Your task to perform on an android device: Search for sushi restaurants on Maps Image 0: 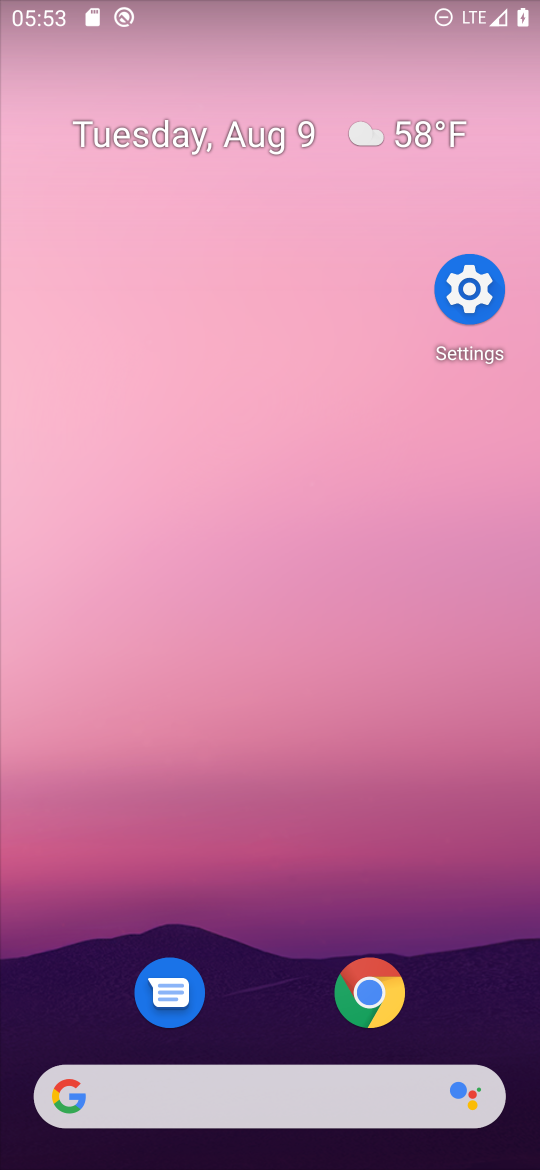
Step 0: drag from (178, 812) to (495, 911)
Your task to perform on an android device: Search for sushi restaurants on Maps Image 1: 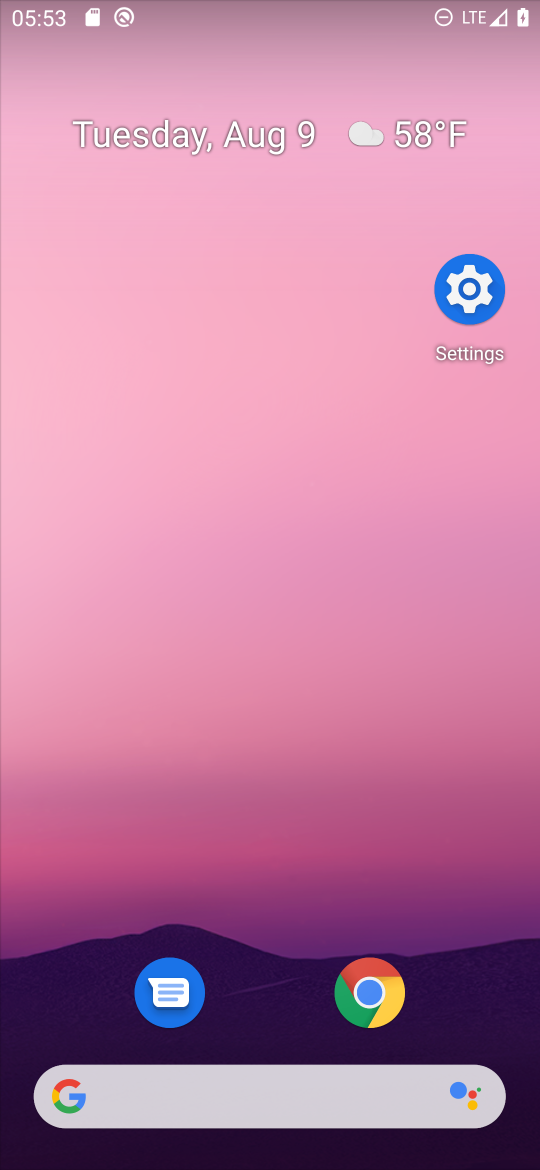
Step 1: drag from (226, 1072) to (226, 18)
Your task to perform on an android device: Search for sushi restaurants on Maps Image 2: 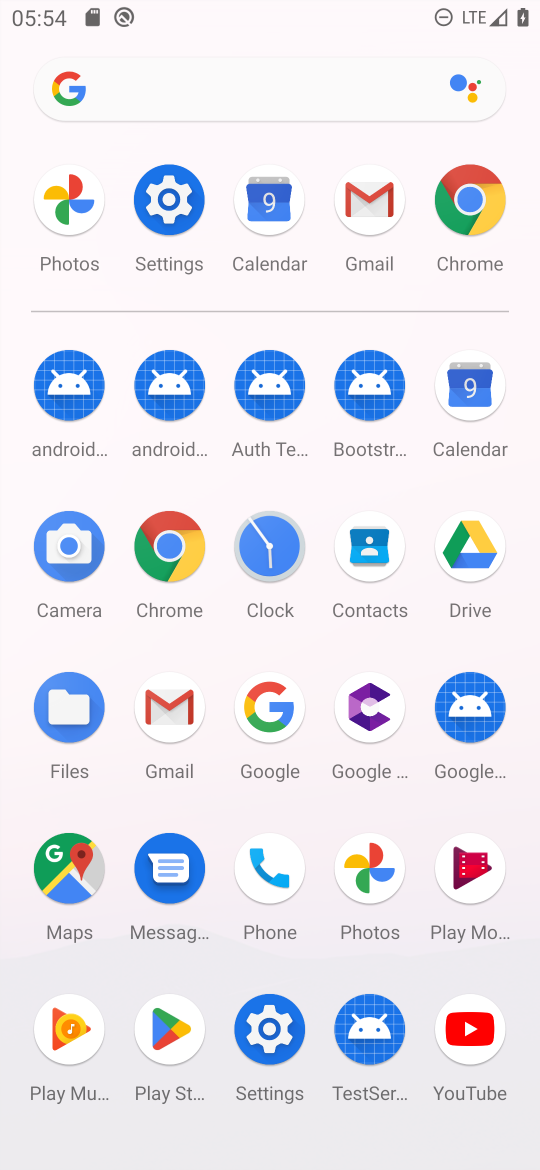
Step 2: click (82, 882)
Your task to perform on an android device: Search for sushi restaurants on Maps Image 3: 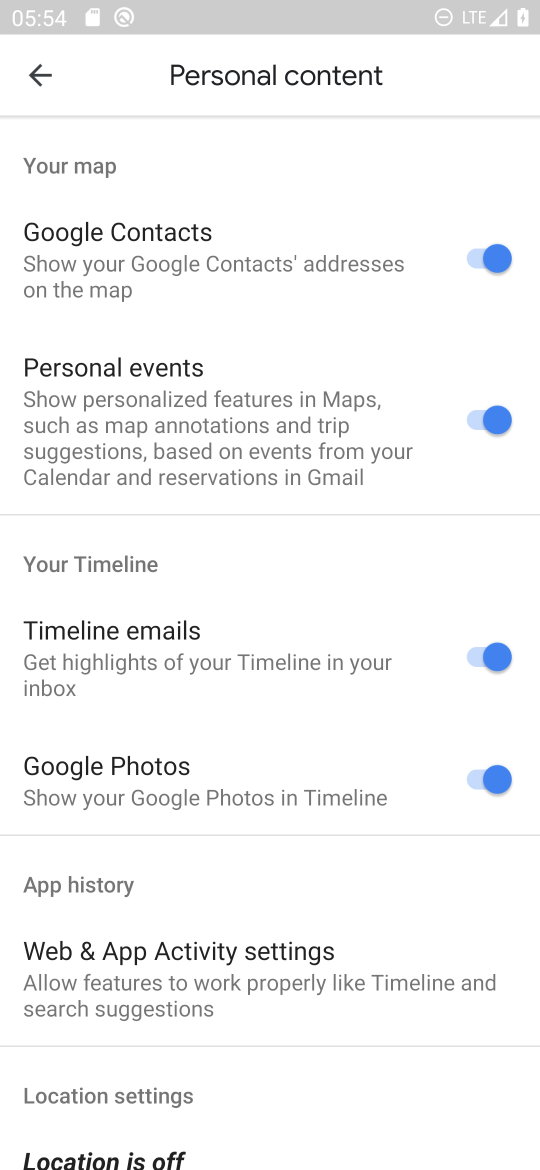
Step 3: press back button
Your task to perform on an android device: Search for sushi restaurants on Maps Image 4: 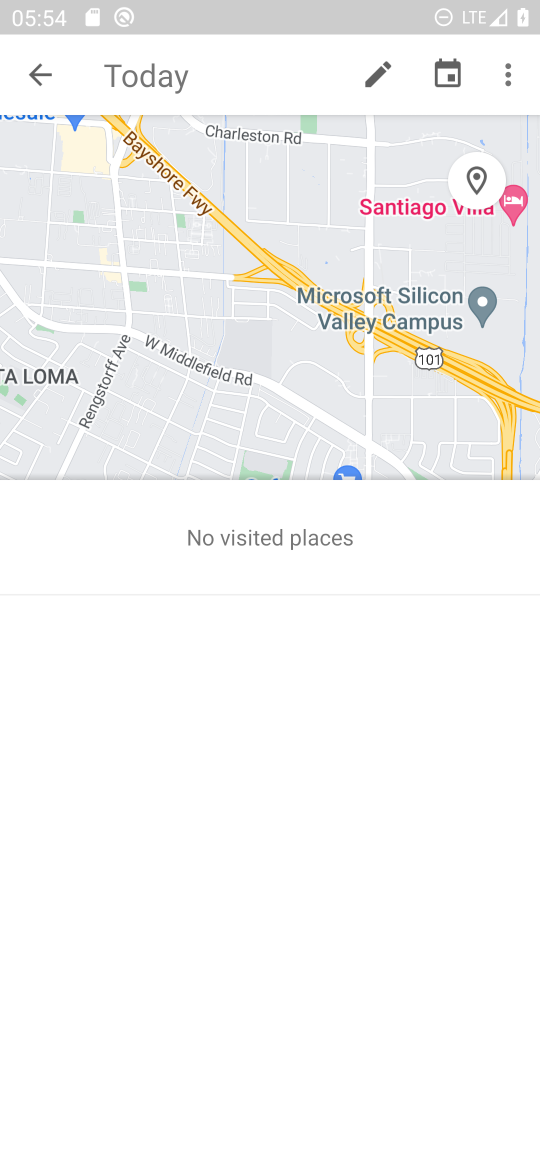
Step 4: press back button
Your task to perform on an android device: Search for sushi restaurants on Maps Image 5: 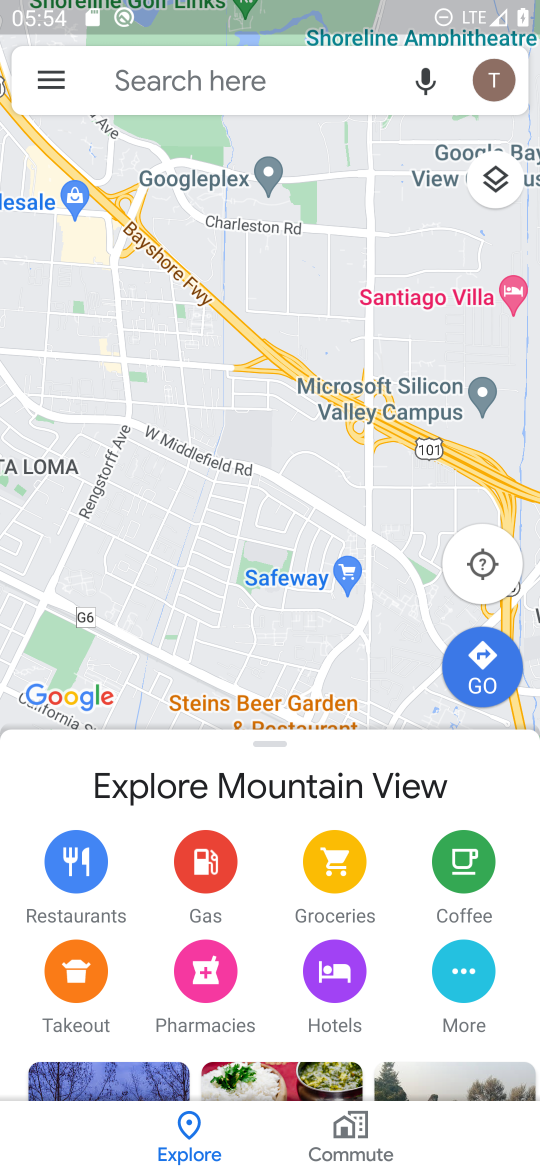
Step 5: click (289, 75)
Your task to perform on an android device: Search for sushi restaurants on Maps Image 6: 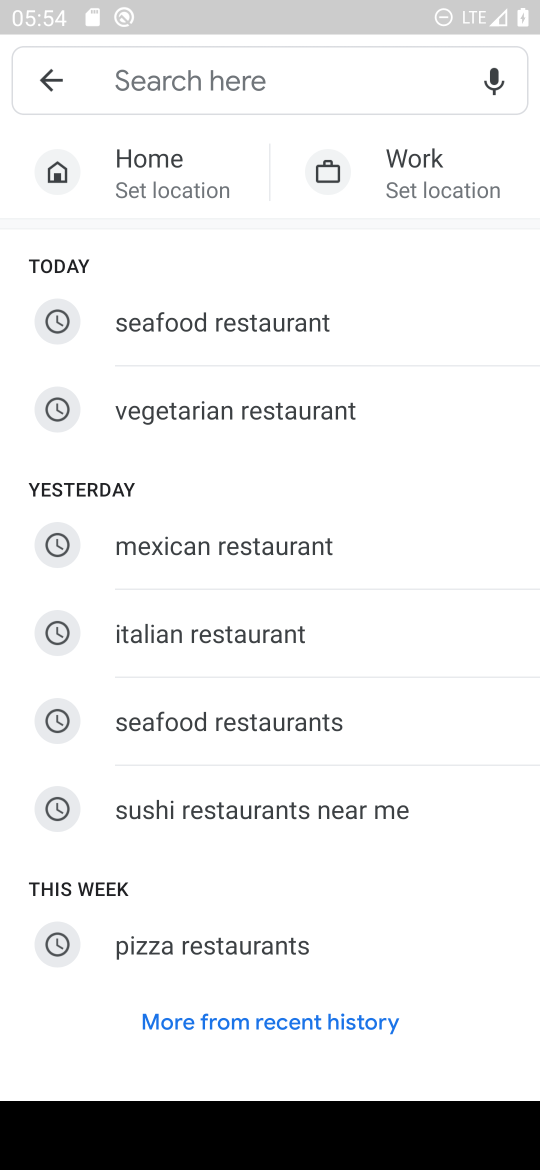
Step 6: click (219, 800)
Your task to perform on an android device: Search for sushi restaurants on Maps Image 7: 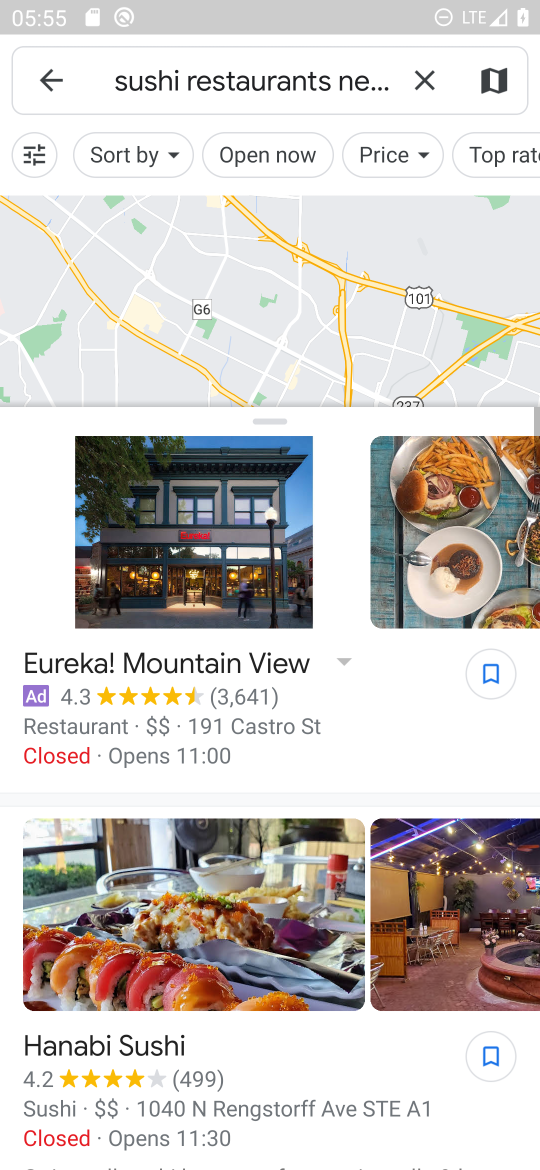
Step 7: task complete